Your task to perform on an android device: Show me productivity apps on the Play Store Image 0: 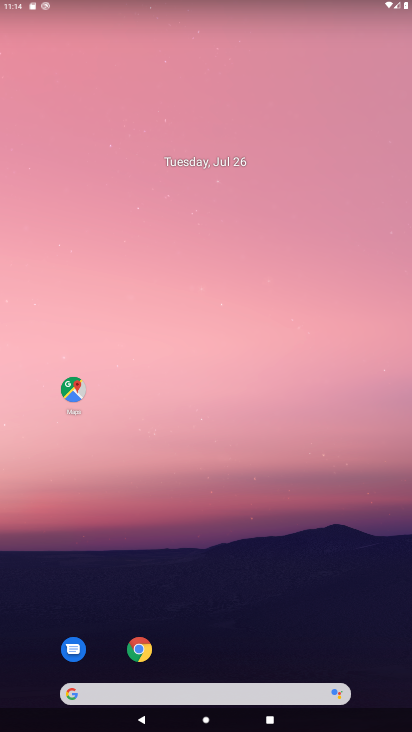
Step 0: drag from (201, 658) to (224, 25)
Your task to perform on an android device: Show me productivity apps on the Play Store Image 1: 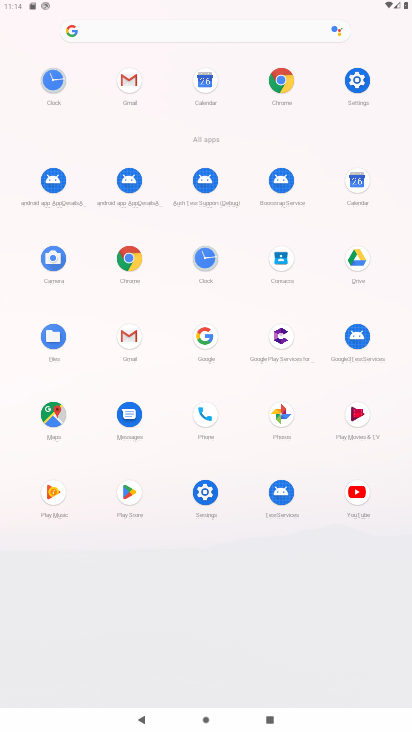
Step 1: click (129, 501)
Your task to perform on an android device: Show me productivity apps on the Play Store Image 2: 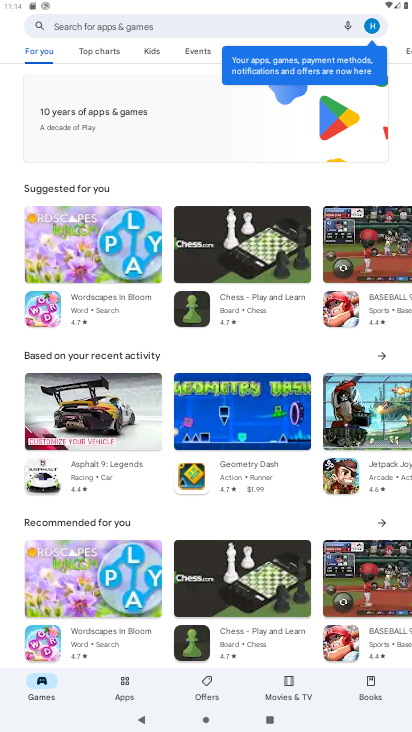
Step 2: click (115, 684)
Your task to perform on an android device: Show me productivity apps on the Play Store Image 3: 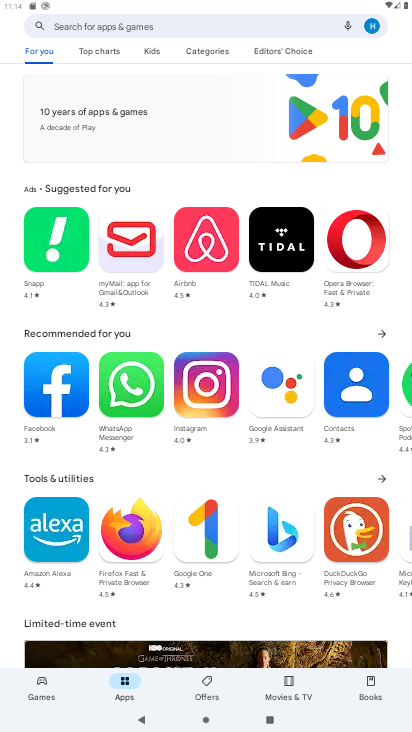
Step 3: click (195, 54)
Your task to perform on an android device: Show me productivity apps on the Play Store Image 4: 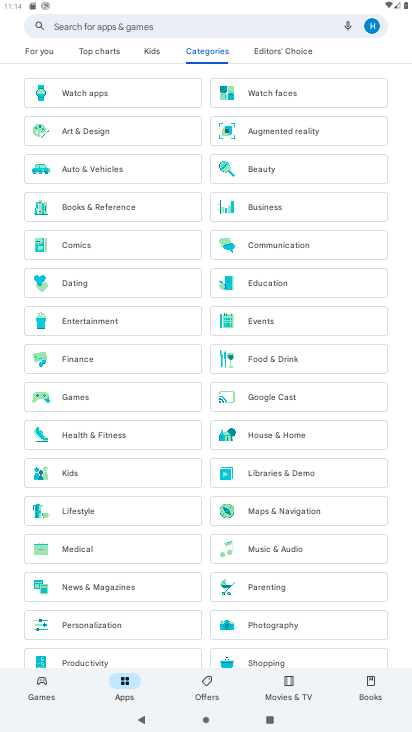
Step 4: click (113, 659)
Your task to perform on an android device: Show me productivity apps on the Play Store Image 5: 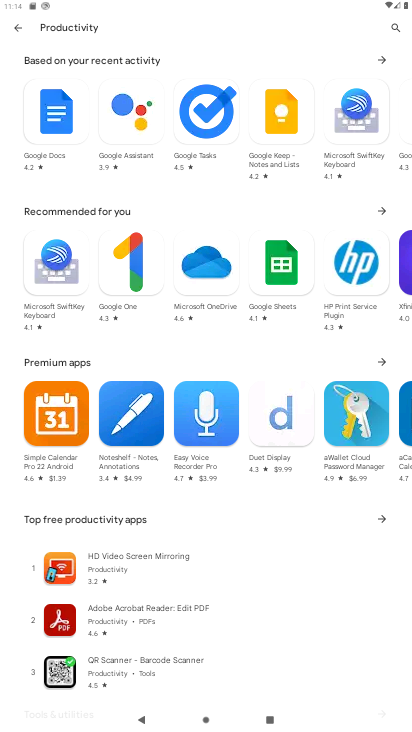
Step 5: task complete